Your task to perform on an android device: turn on showing notifications on the lock screen Image 0: 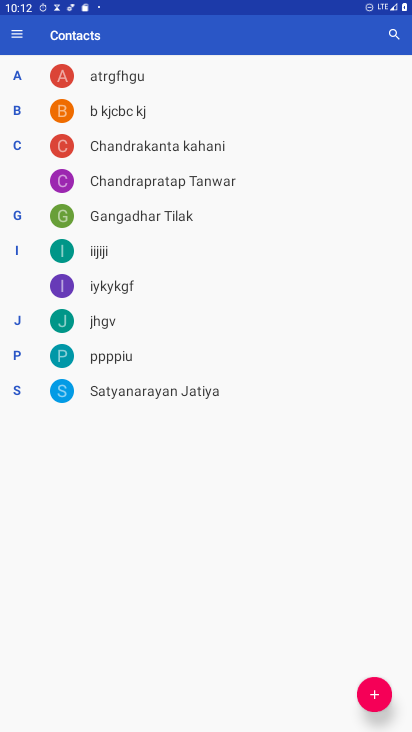
Step 0: press home button
Your task to perform on an android device: turn on showing notifications on the lock screen Image 1: 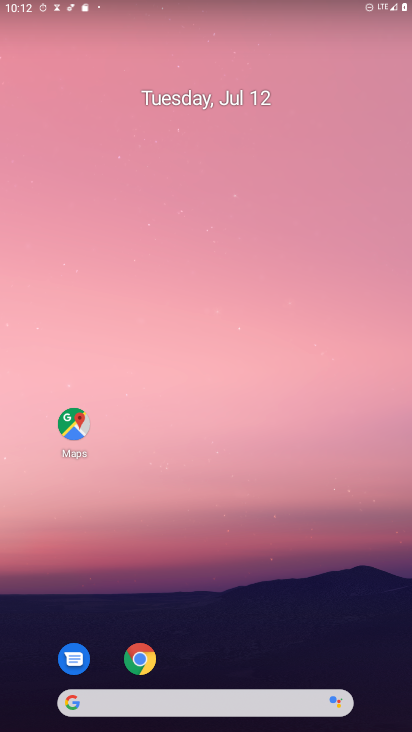
Step 1: drag from (194, 696) to (214, 172)
Your task to perform on an android device: turn on showing notifications on the lock screen Image 2: 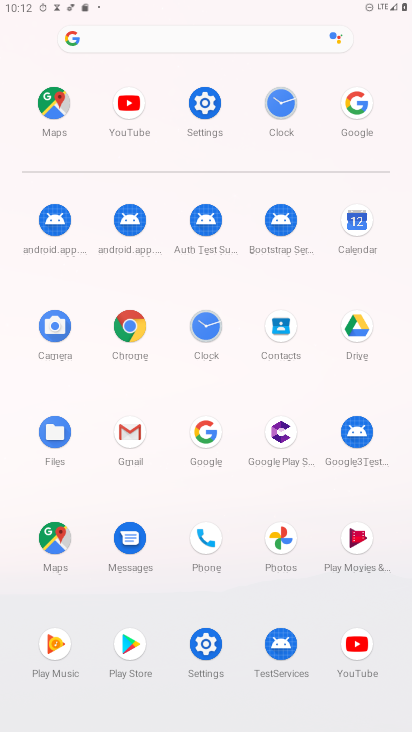
Step 2: click (205, 106)
Your task to perform on an android device: turn on showing notifications on the lock screen Image 3: 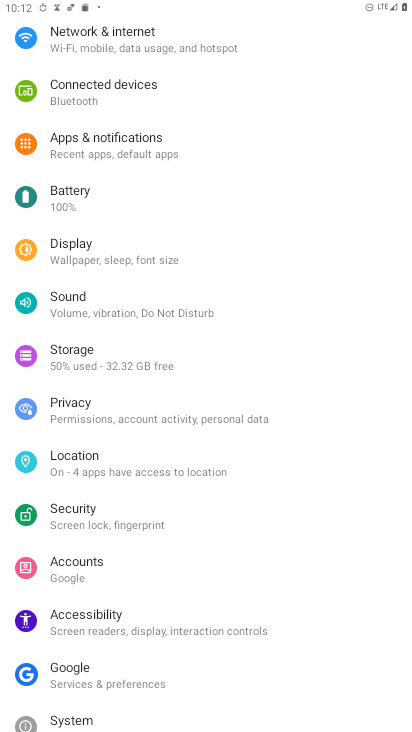
Step 3: click (128, 142)
Your task to perform on an android device: turn on showing notifications on the lock screen Image 4: 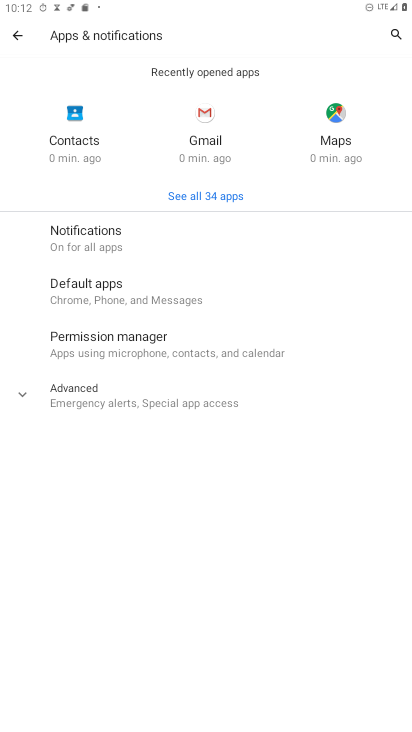
Step 4: click (88, 239)
Your task to perform on an android device: turn on showing notifications on the lock screen Image 5: 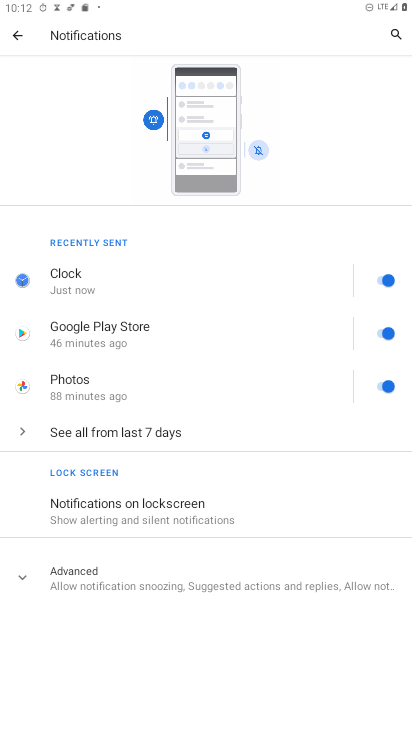
Step 5: click (136, 524)
Your task to perform on an android device: turn on showing notifications on the lock screen Image 6: 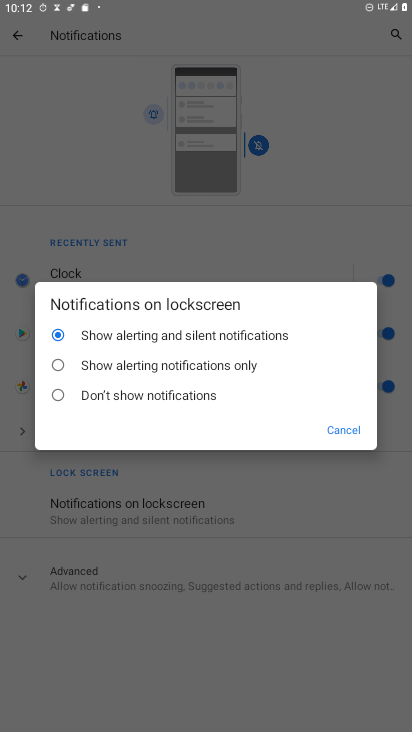
Step 6: click (57, 331)
Your task to perform on an android device: turn on showing notifications on the lock screen Image 7: 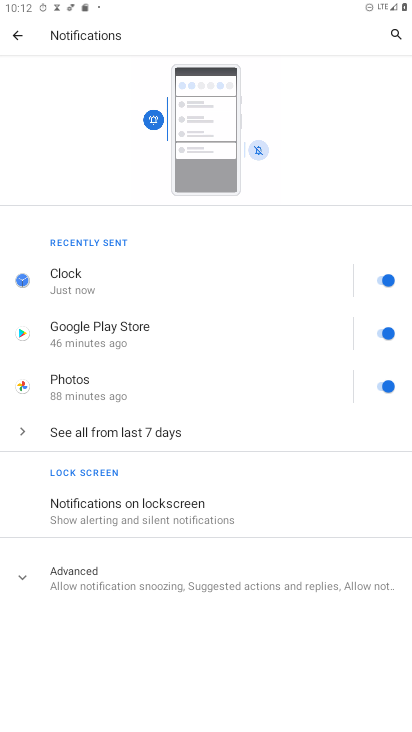
Step 7: task complete